Your task to perform on an android device: make emails show in primary in the gmail app Image 0: 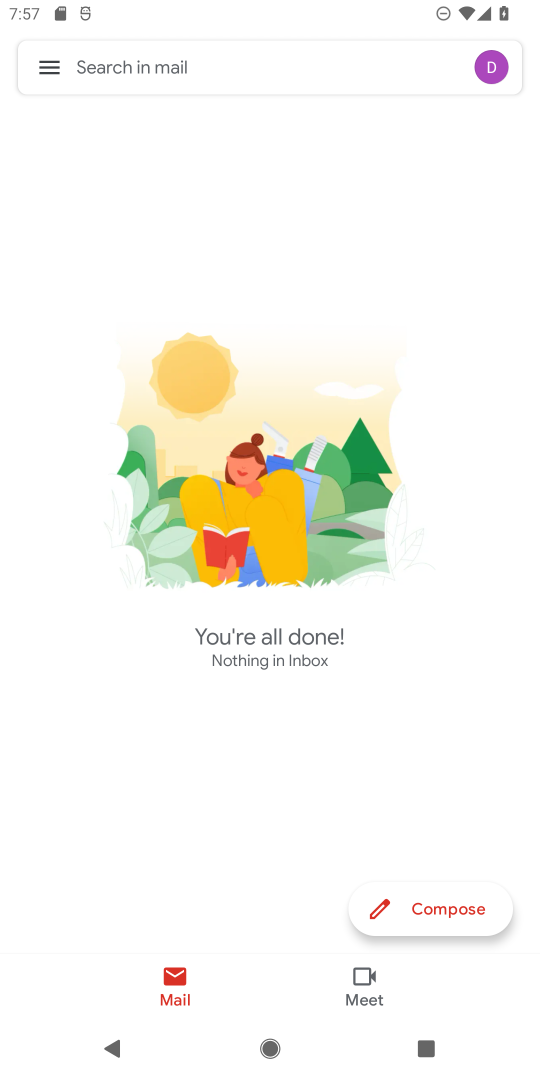
Step 0: click (56, 65)
Your task to perform on an android device: make emails show in primary in the gmail app Image 1: 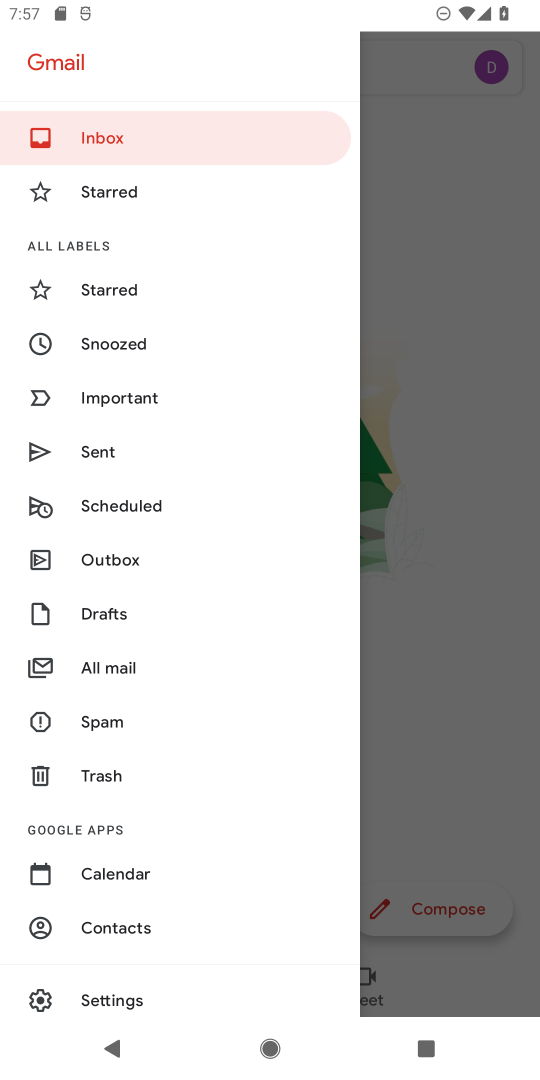
Step 1: click (118, 1005)
Your task to perform on an android device: make emails show in primary in the gmail app Image 2: 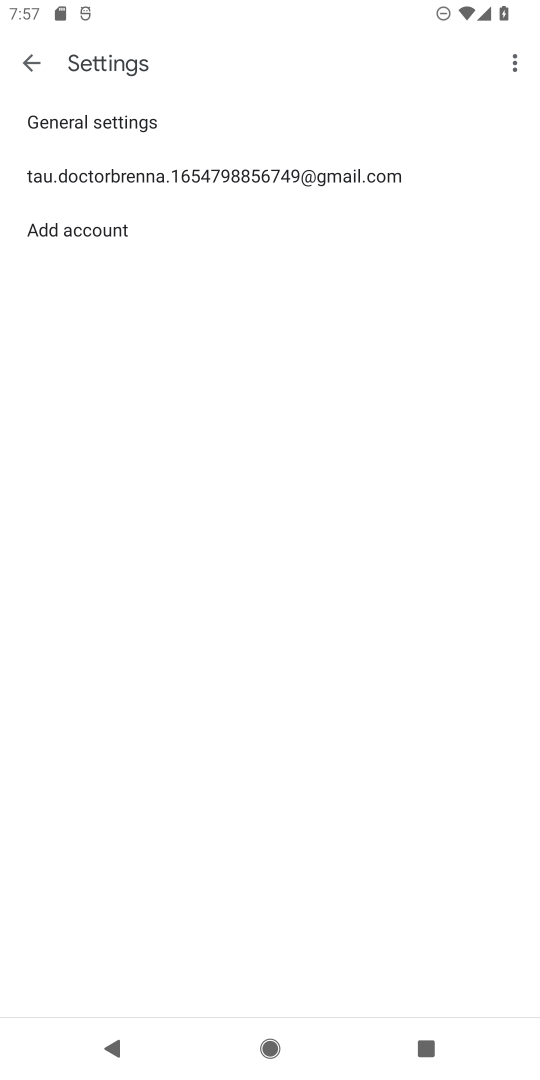
Step 2: click (81, 175)
Your task to perform on an android device: make emails show in primary in the gmail app Image 3: 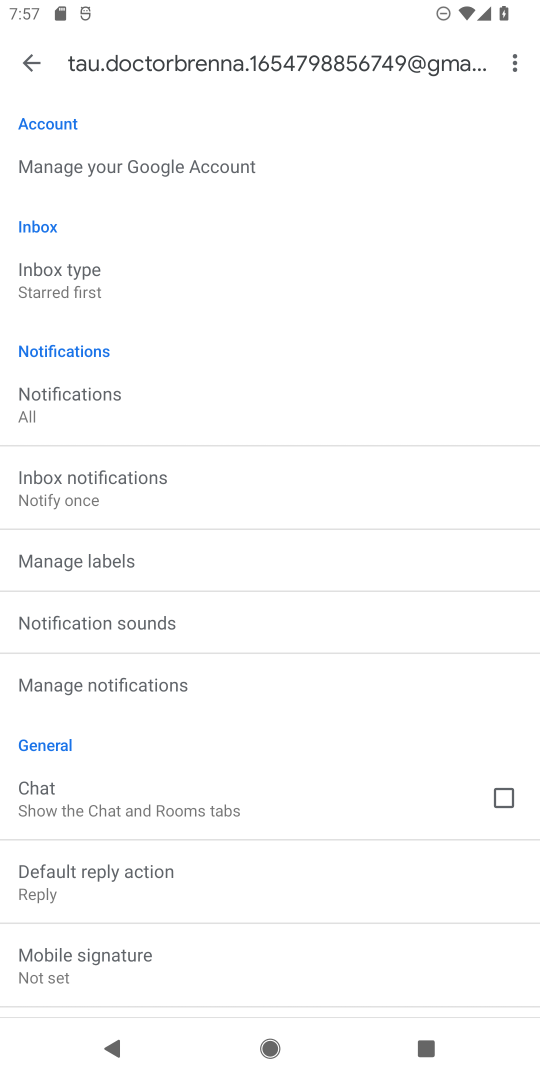
Step 3: click (76, 287)
Your task to perform on an android device: make emails show in primary in the gmail app Image 4: 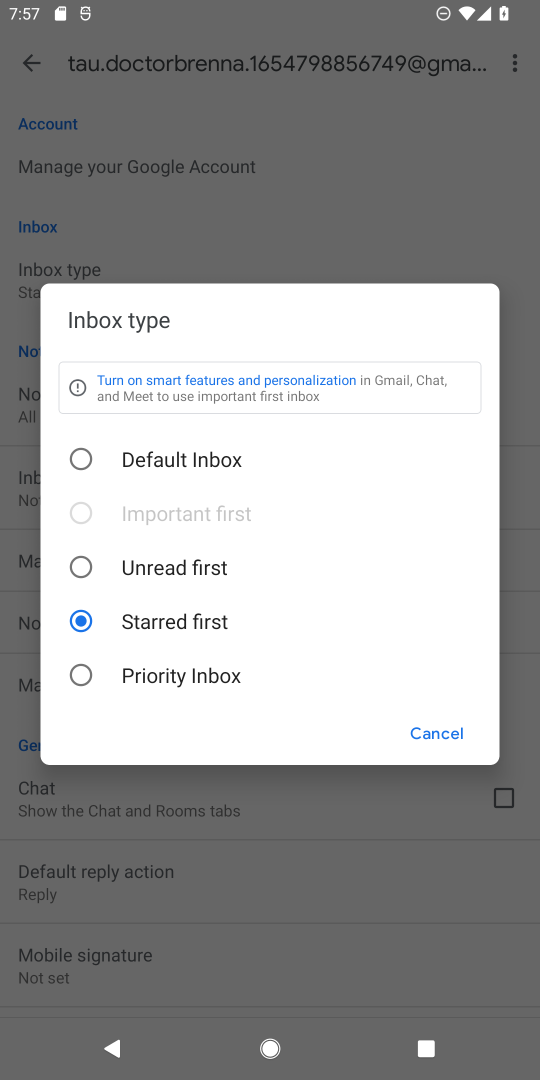
Step 4: click (141, 447)
Your task to perform on an android device: make emails show in primary in the gmail app Image 5: 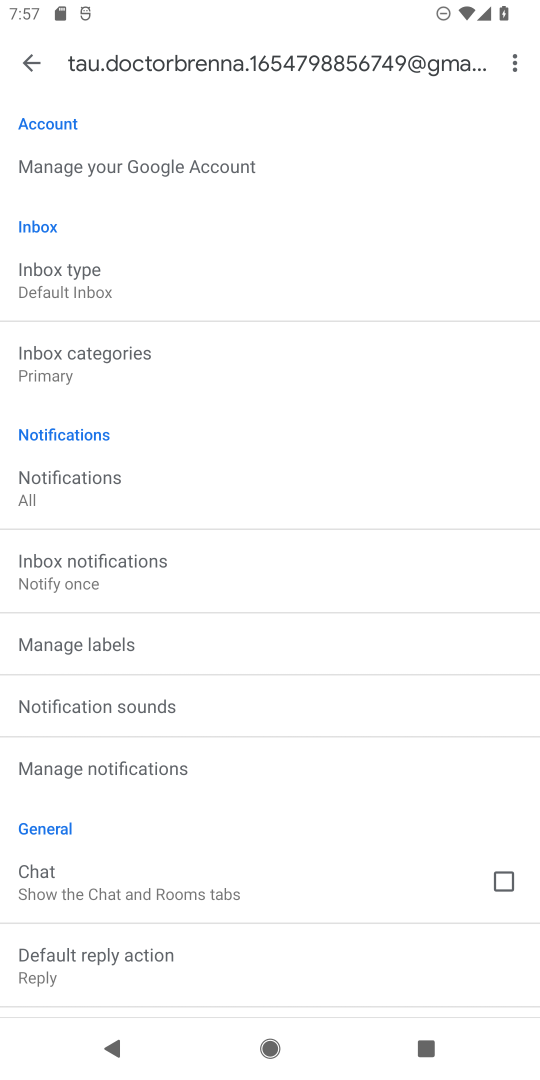
Step 5: click (65, 370)
Your task to perform on an android device: make emails show in primary in the gmail app Image 6: 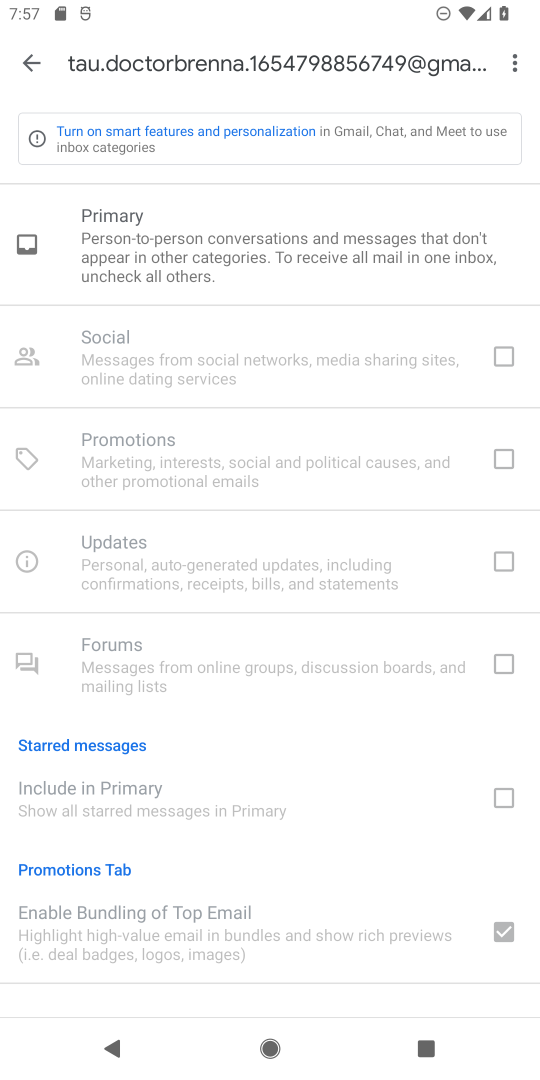
Step 6: click (19, 63)
Your task to perform on an android device: make emails show in primary in the gmail app Image 7: 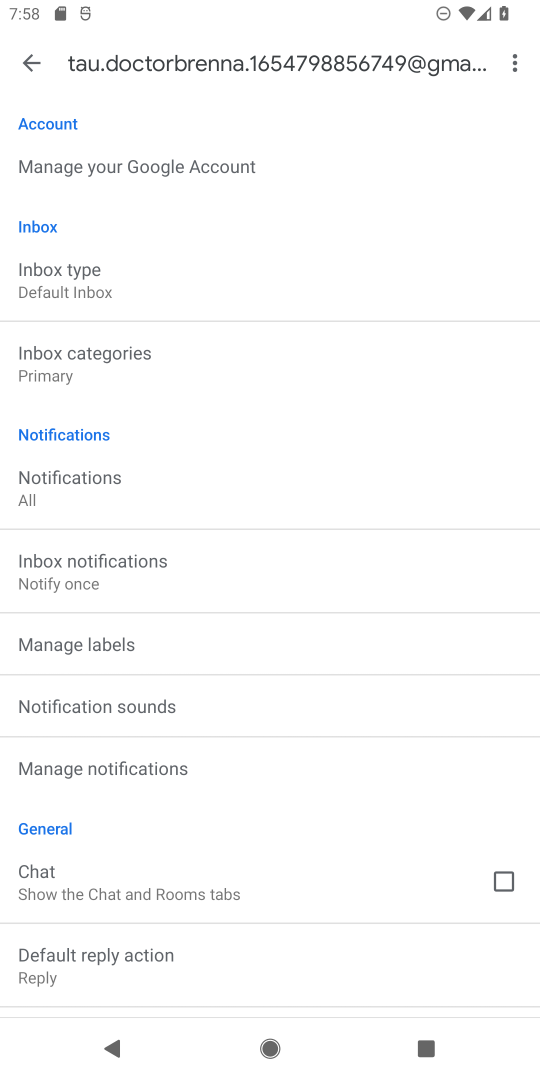
Step 7: task complete